Your task to perform on an android device: toggle sleep mode Image 0: 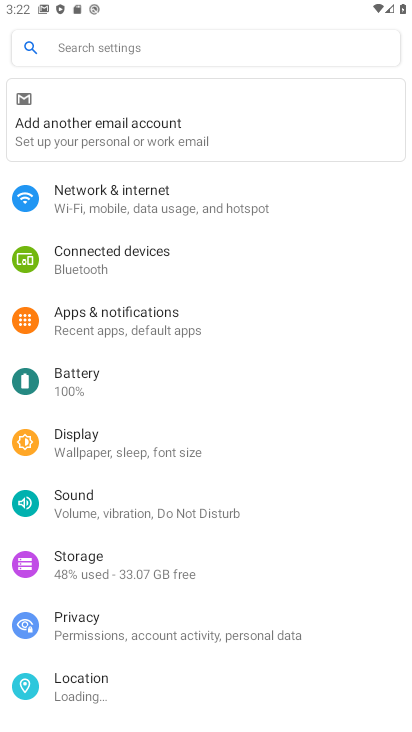
Step 0: click (138, 313)
Your task to perform on an android device: toggle sleep mode Image 1: 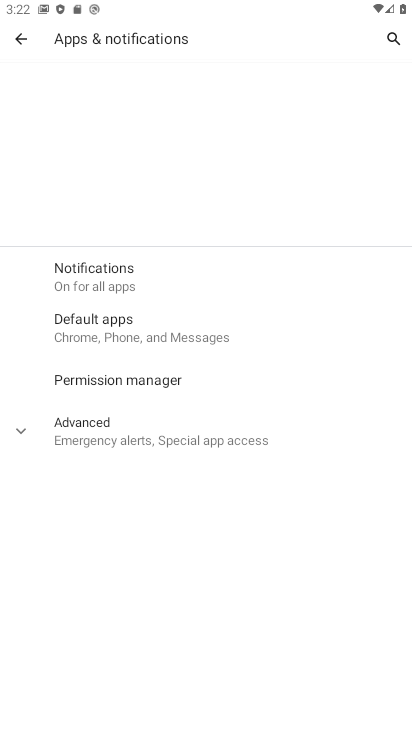
Step 1: press home button
Your task to perform on an android device: toggle sleep mode Image 2: 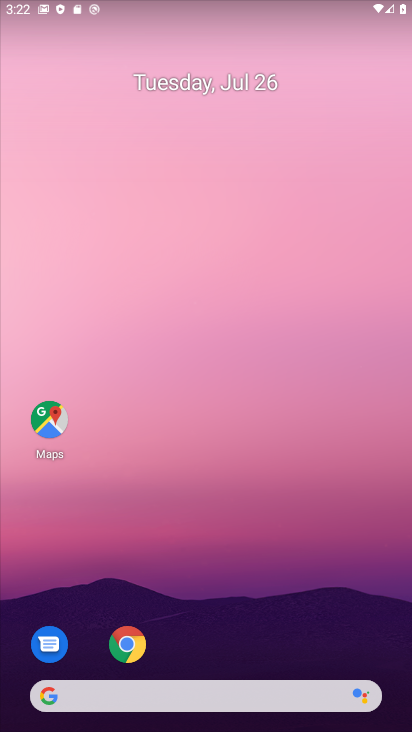
Step 2: drag from (373, 497) to (340, 151)
Your task to perform on an android device: toggle sleep mode Image 3: 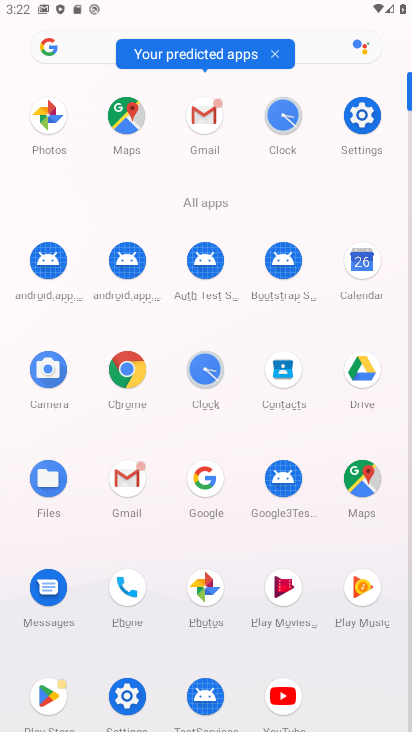
Step 3: click (128, 697)
Your task to perform on an android device: toggle sleep mode Image 4: 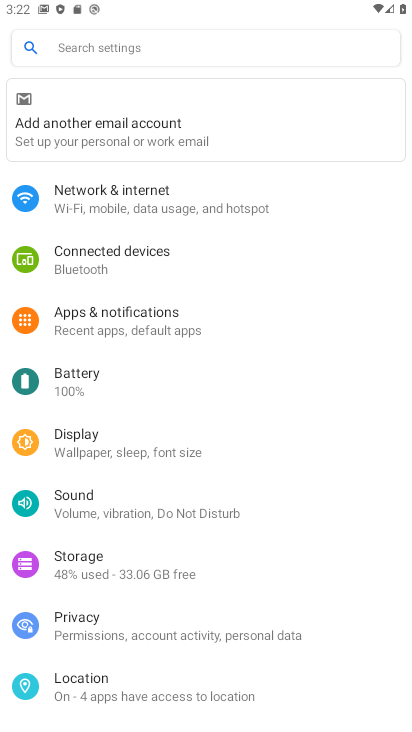
Step 4: click (99, 437)
Your task to perform on an android device: toggle sleep mode Image 5: 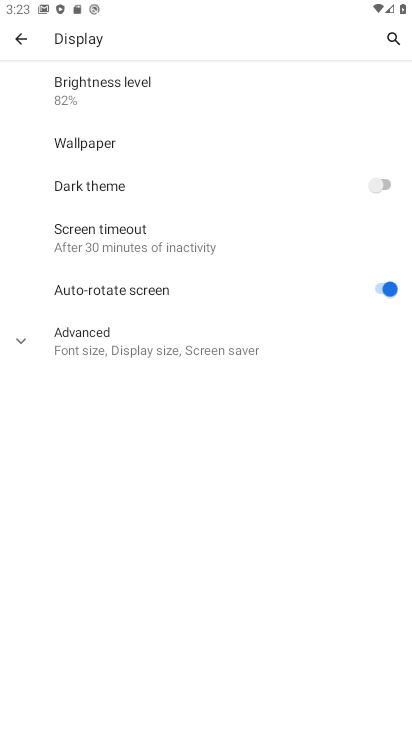
Step 5: click (17, 339)
Your task to perform on an android device: toggle sleep mode Image 6: 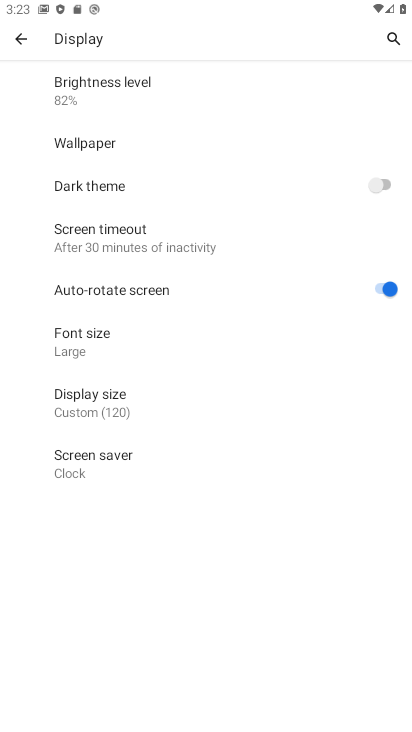
Step 6: task complete